Your task to perform on an android device: Show me the alarms in the clock app Image 0: 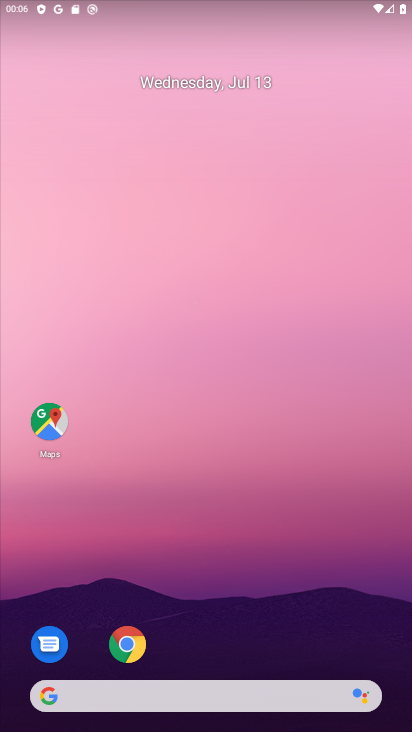
Step 0: drag from (233, 644) to (251, 85)
Your task to perform on an android device: Show me the alarms in the clock app Image 1: 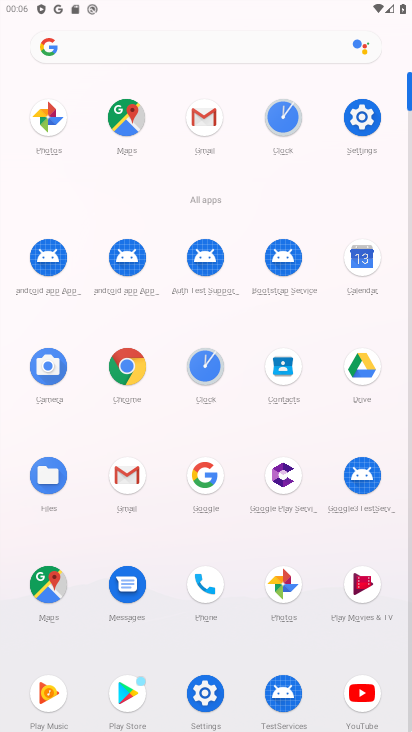
Step 1: click (283, 116)
Your task to perform on an android device: Show me the alarms in the clock app Image 2: 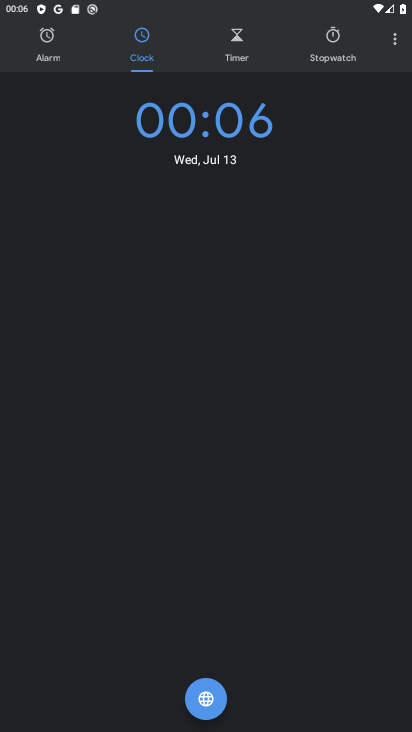
Step 2: click (59, 50)
Your task to perform on an android device: Show me the alarms in the clock app Image 3: 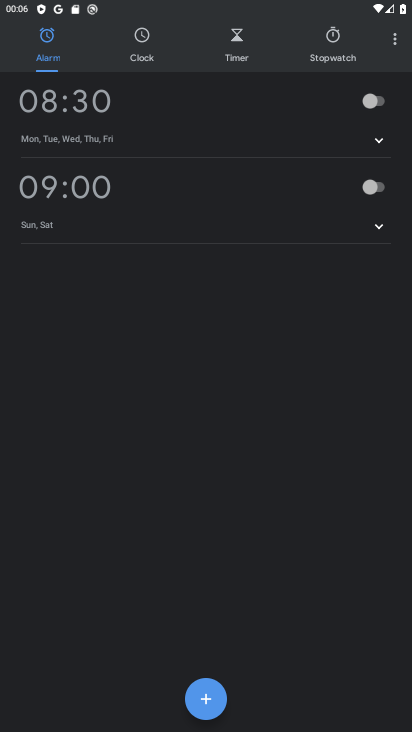
Step 3: task complete